Your task to perform on an android device: check google app version Image 0: 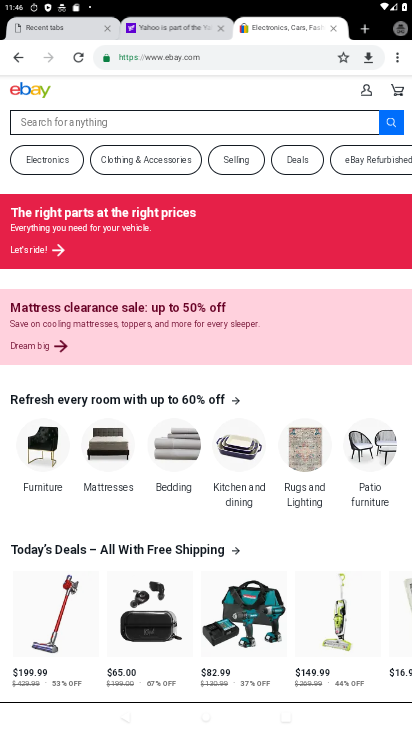
Step 0: drag from (400, 52) to (284, 414)
Your task to perform on an android device: check google app version Image 1: 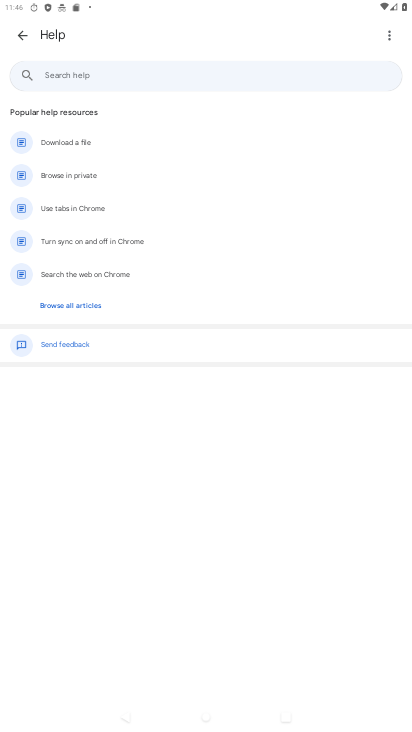
Step 1: click (389, 31)
Your task to perform on an android device: check google app version Image 2: 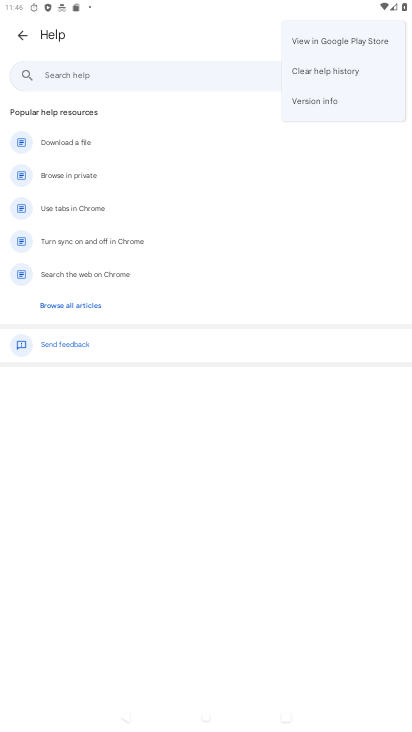
Step 2: click (321, 99)
Your task to perform on an android device: check google app version Image 3: 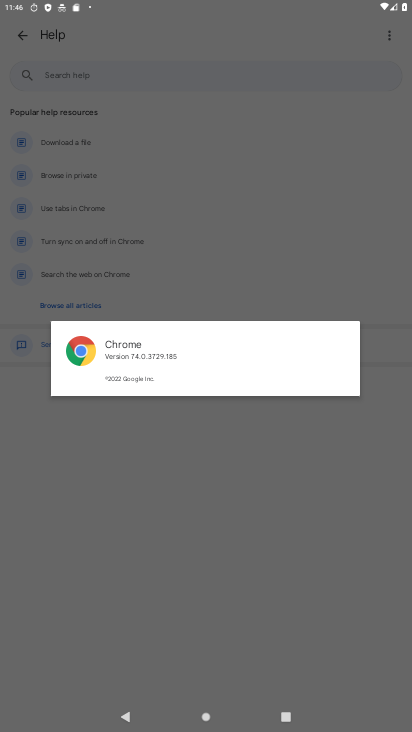
Step 3: task complete